Your task to perform on an android device: Go to Google Image 0: 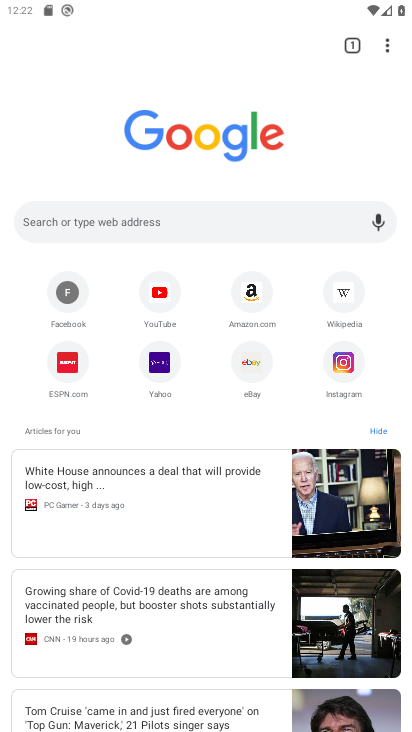
Step 0: press home button
Your task to perform on an android device: Go to Google Image 1: 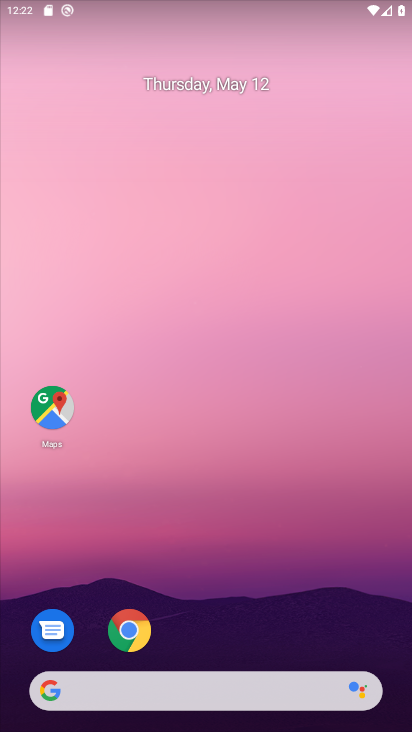
Step 1: drag from (235, 625) to (234, 119)
Your task to perform on an android device: Go to Google Image 2: 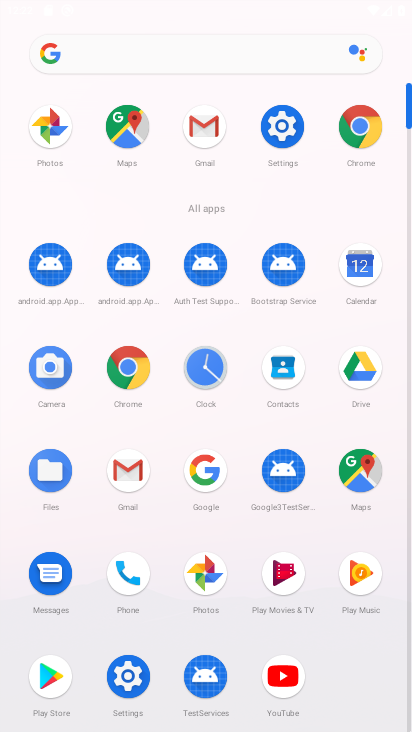
Step 2: drag from (257, 215) to (275, 32)
Your task to perform on an android device: Go to Google Image 3: 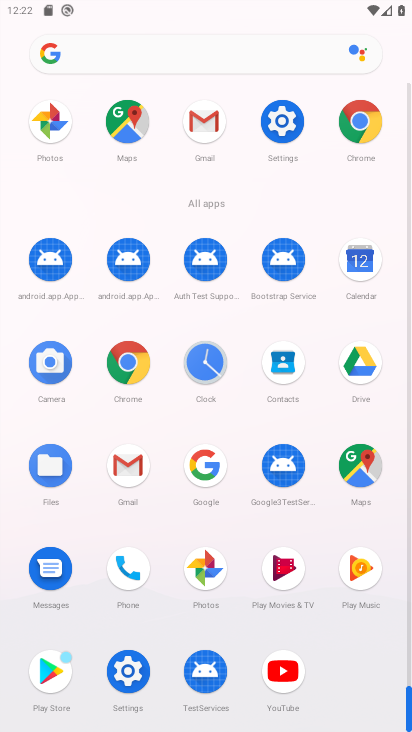
Step 3: click (219, 454)
Your task to perform on an android device: Go to Google Image 4: 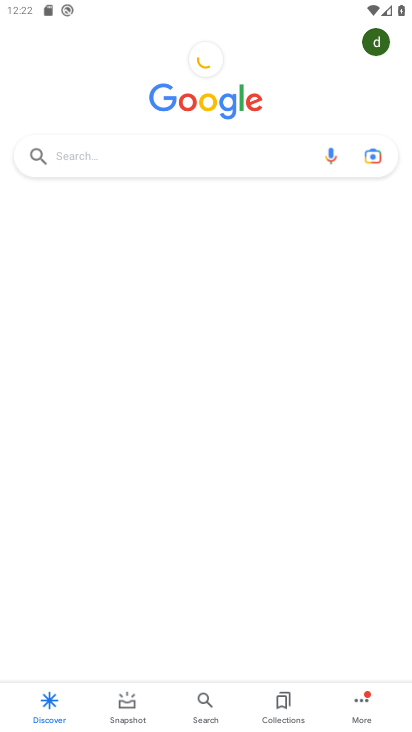
Step 4: task complete